Your task to perform on an android device: turn on bluetooth scan Image 0: 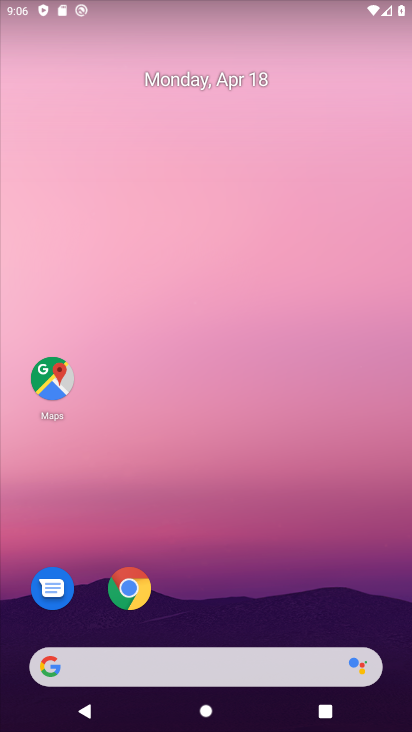
Step 0: drag from (270, 418) to (237, 79)
Your task to perform on an android device: turn on bluetooth scan Image 1: 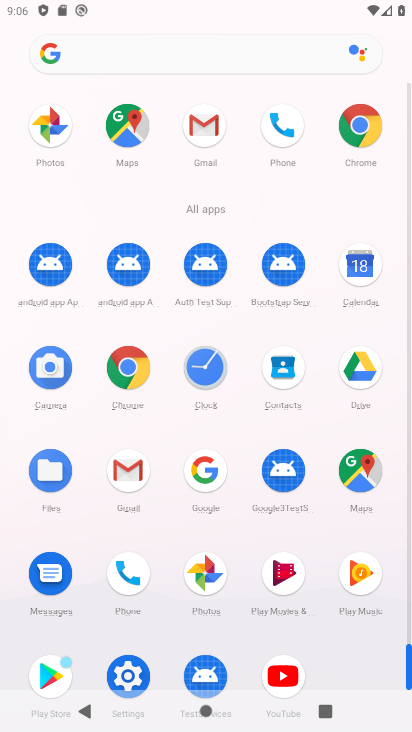
Step 1: drag from (252, 223) to (233, 0)
Your task to perform on an android device: turn on bluetooth scan Image 2: 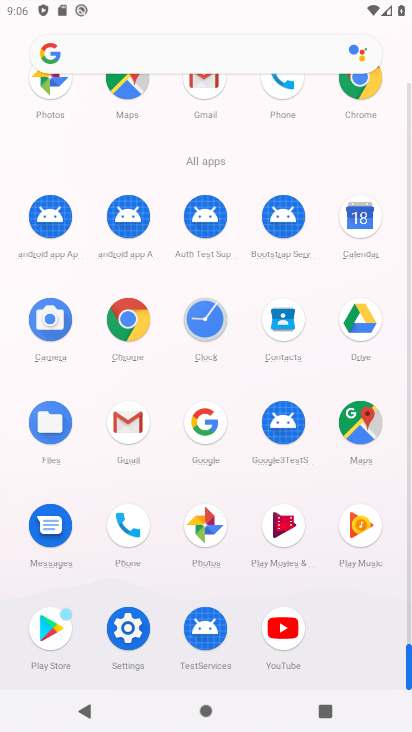
Step 2: click (135, 620)
Your task to perform on an android device: turn on bluetooth scan Image 3: 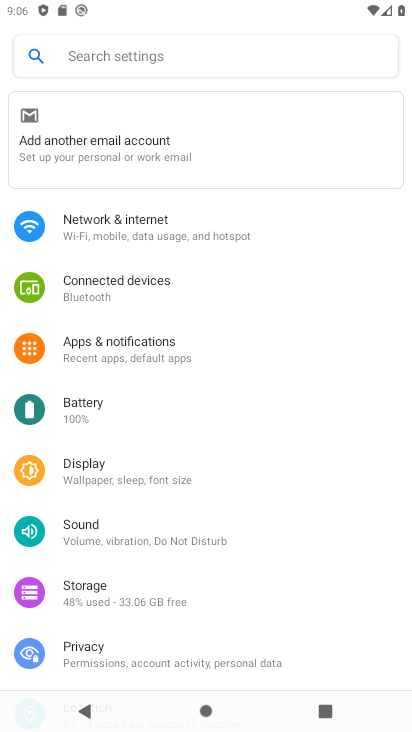
Step 3: drag from (278, 607) to (251, 270)
Your task to perform on an android device: turn on bluetooth scan Image 4: 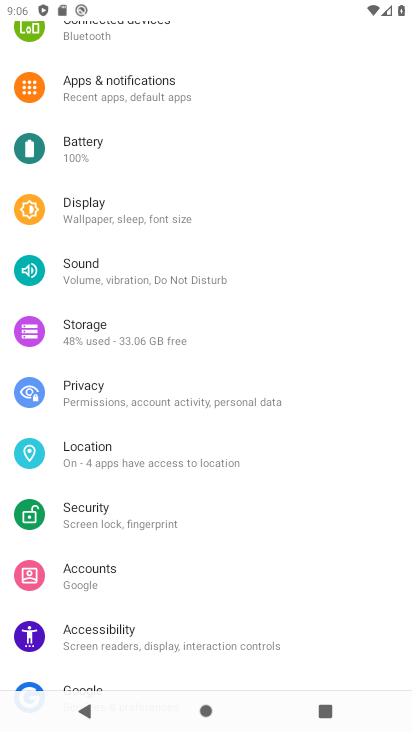
Step 4: click (115, 456)
Your task to perform on an android device: turn on bluetooth scan Image 5: 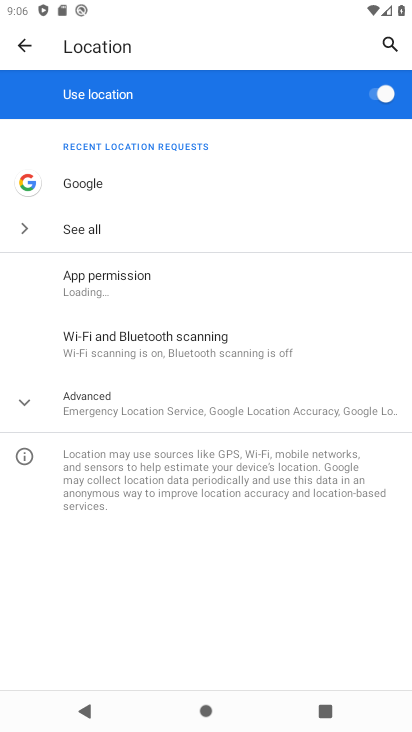
Step 5: click (174, 342)
Your task to perform on an android device: turn on bluetooth scan Image 6: 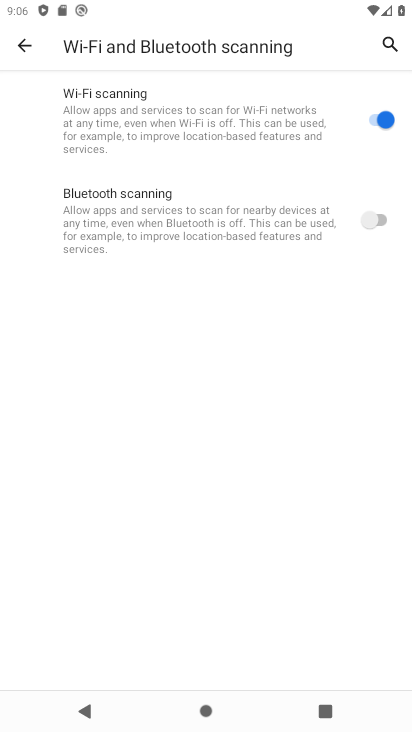
Step 6: click (382, 219)
Your task to perform on an android device: turn on bluetooth scan Image 7: 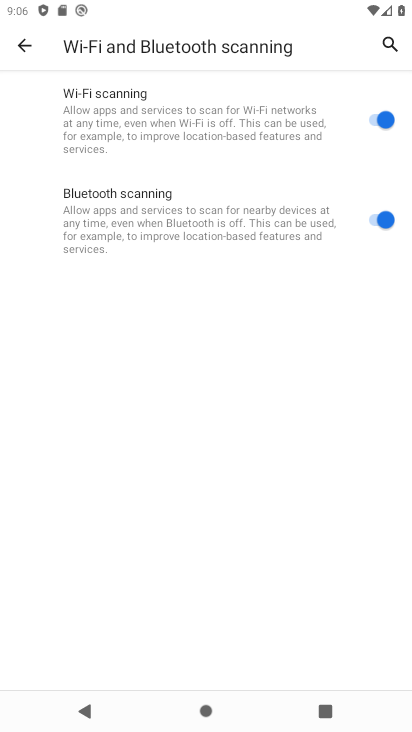
Step 7: task complete